Your task to perform on an android device: Open maps Image 0: 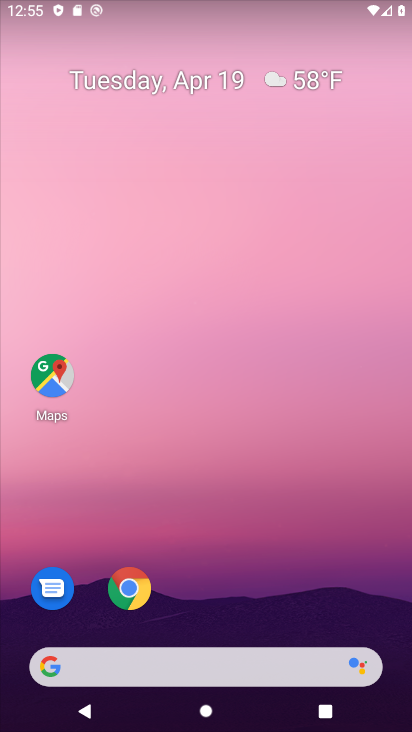
Step 0: drag from (205, 599) to (203, 450)
Your task to perform on an android device: Open maps Image 1: 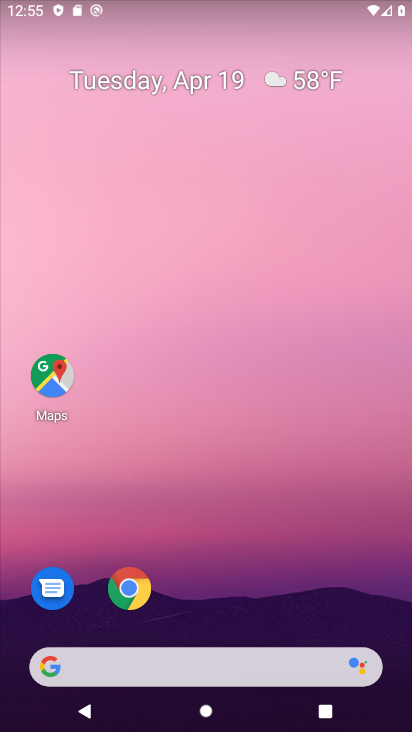
Step 1: click (67, 357)
Your task to perform on an android device: Open maps Image 2: 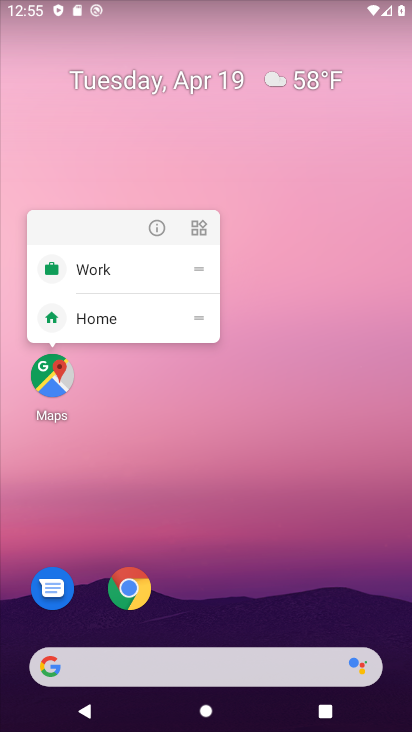
Step 2: click (65, 369)
Your task to perform on an android device: Open maps Image 3: 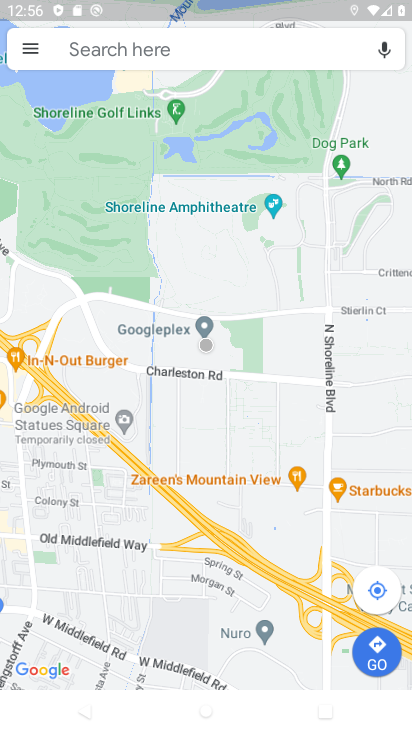
Step 3: task complete